Your task to perform on an android device: How much does a 3 bedroom apartment rent for in New York? Image 0: 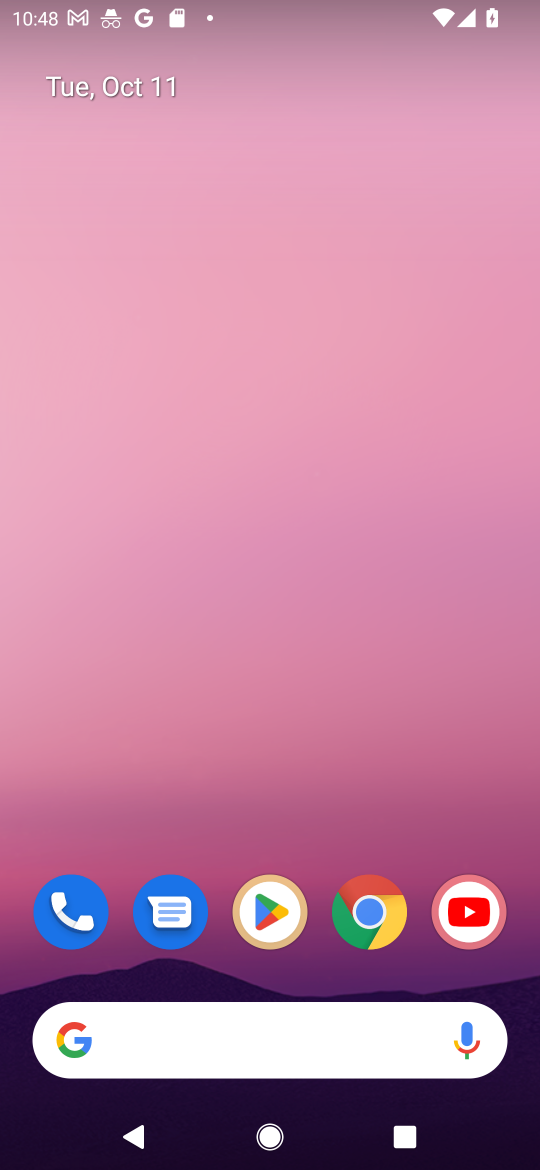
Step 0: click (374, 914)
Your task to perform on an android device: How much does a 3 bedroom apartment rent for in New York? Image 1: 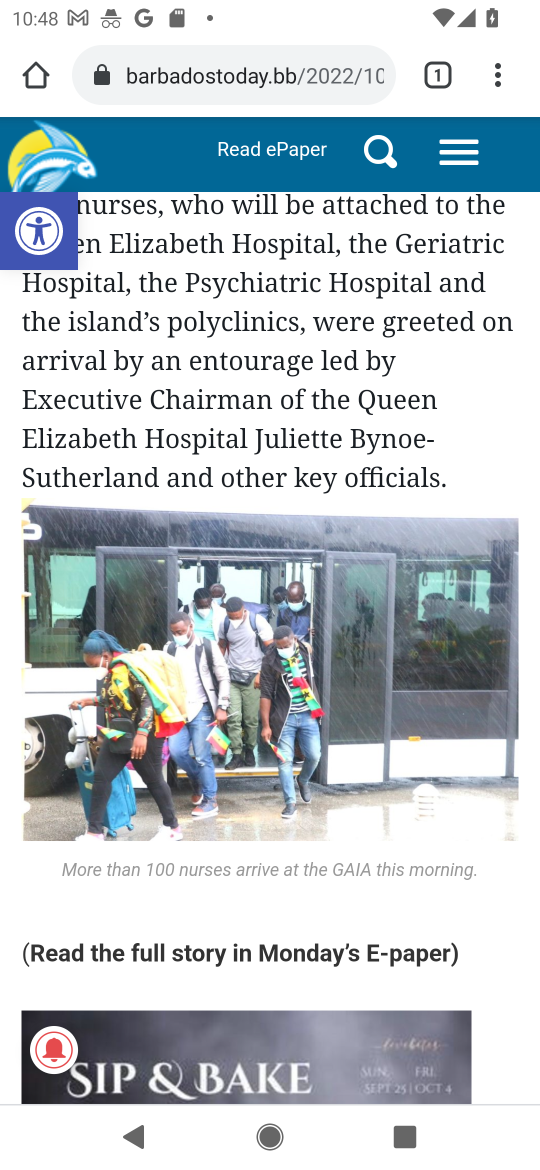
Step 1: click (231, 46)
Your task to perform on an android device: How much does a 3 bedroom apartment rent for in New York? Image 2: 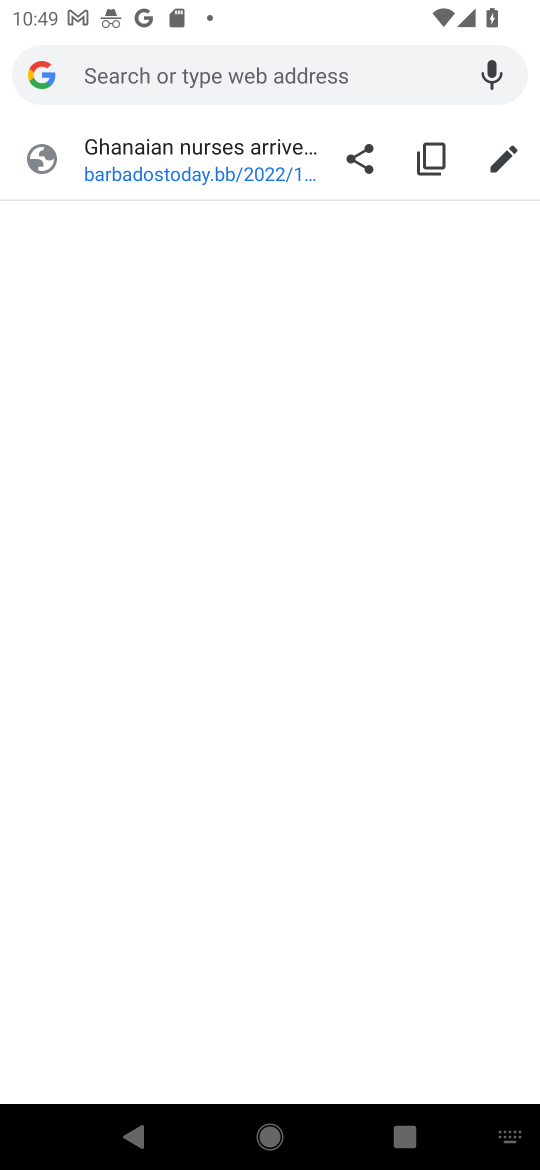
Step 2: type "3 bedroom apartment rent for in New York?"
Your task to perform on an android device: How much does a 3 bedroom apartment rent for in New York? Image 3: 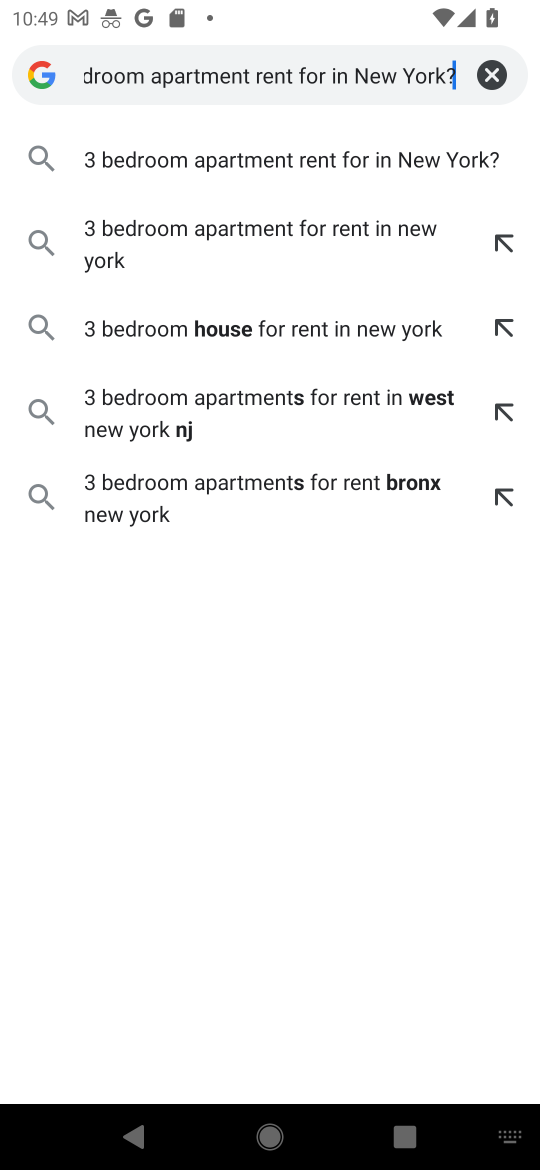
Step 3: click (181, 159)
Your task to perform on an android device: How much does a 3 bedroom apartment rent for in New York? Image 4: 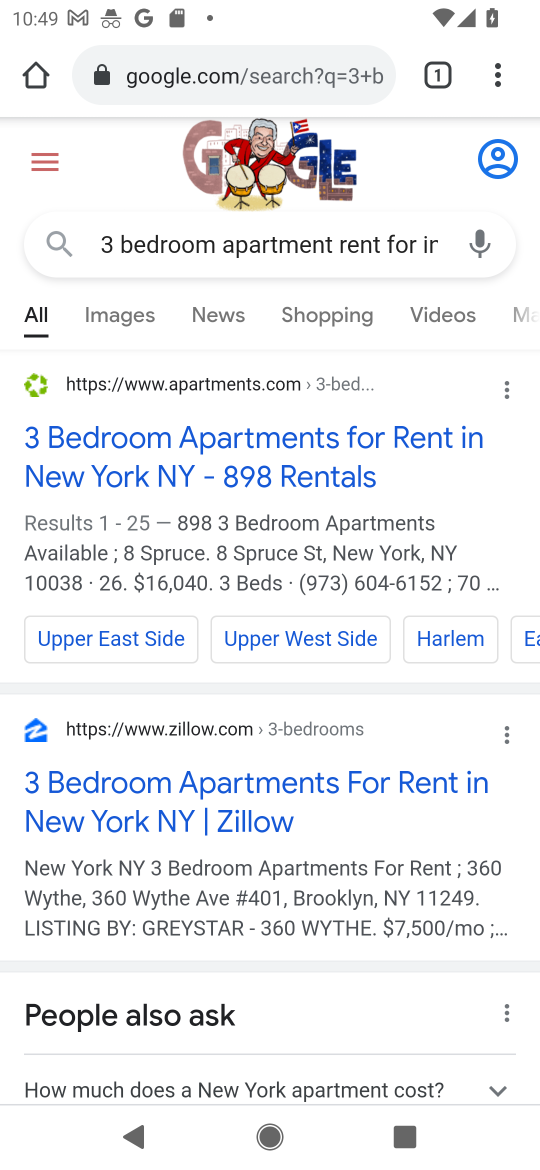
Step 4: click (138, 451)
Your task to perform on an android device: How much does a 3 bedroom apartment rent for in New York? Image 5: 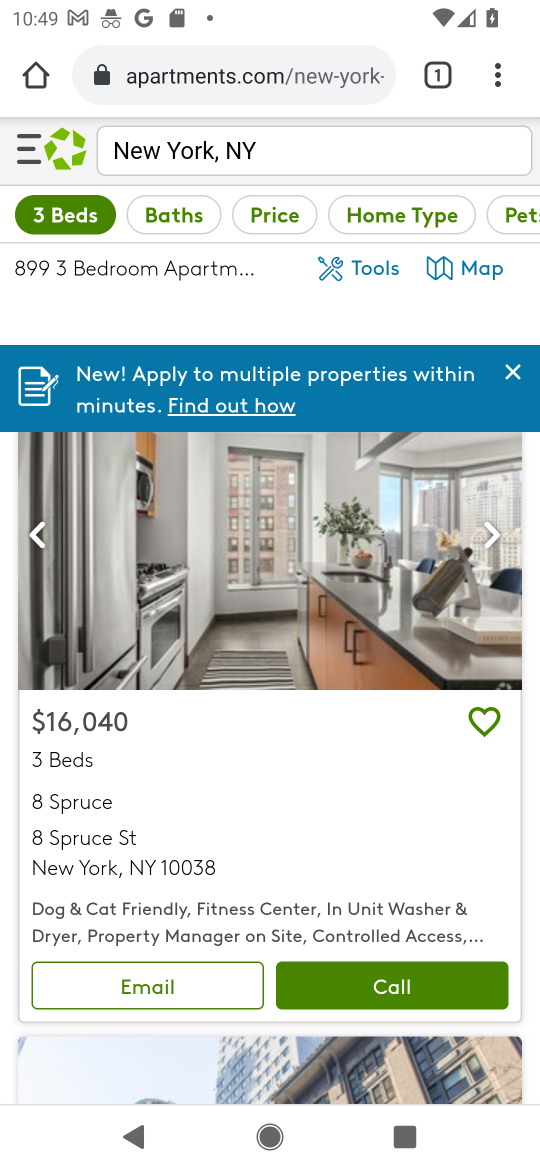
Step 5: task complete